Your task to perform on an android device: turn off priority inbox in the gmail app Image 0: 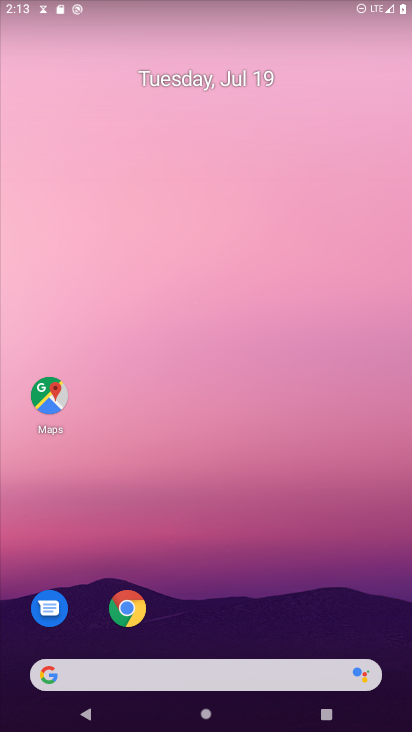
Step 0: drag from (212, 677) to (310, 17)
Your task to perform on an android device: turn off priority inbox in the gmail app Image 1: 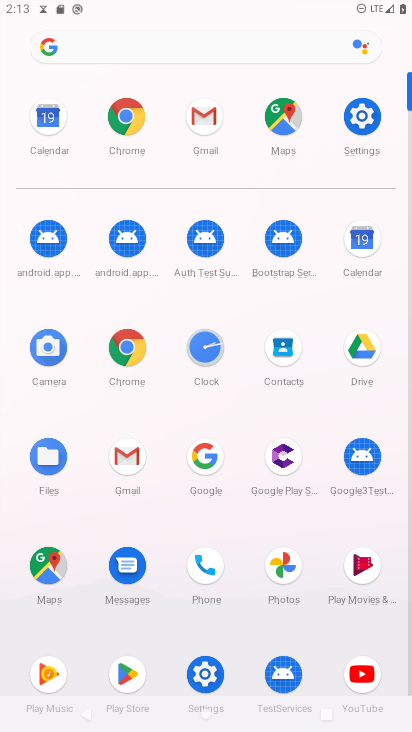
Step 1: click (123, 462)
Your task to perform on an android device: turn off priority inbox in the gmail app Image 2: 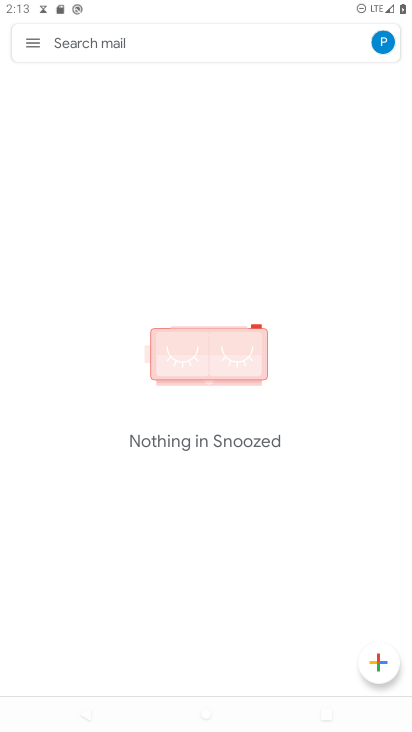
Step 2: click (28, 44)
Your task to perform on an android device: turn off priority inbox in the gmail app Image 3: 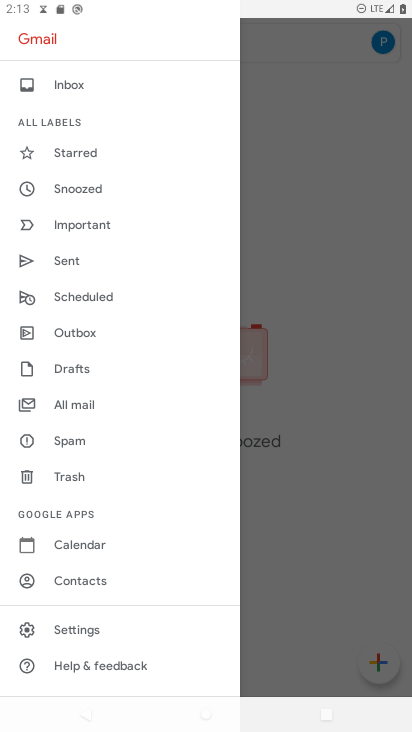
Step 3: click (73, 630)
Your task to perform on an android device: turn off priority inbox in the gmail app Image 4: 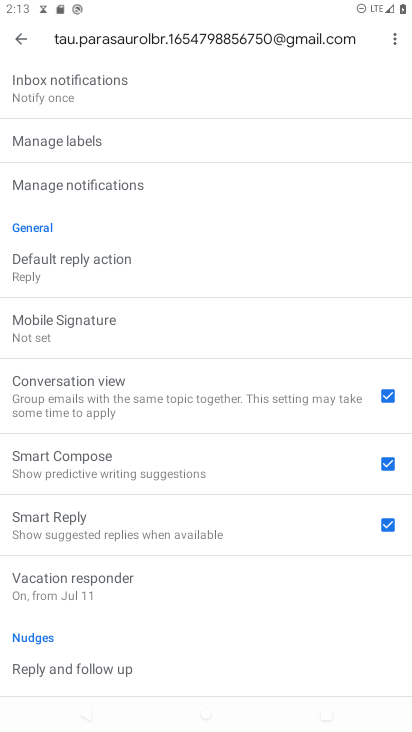
Step 4: drag from (203, 280) to (181, 586)
Your task to perform on an android device: turn off priority inbox in the gmail app Image 5: 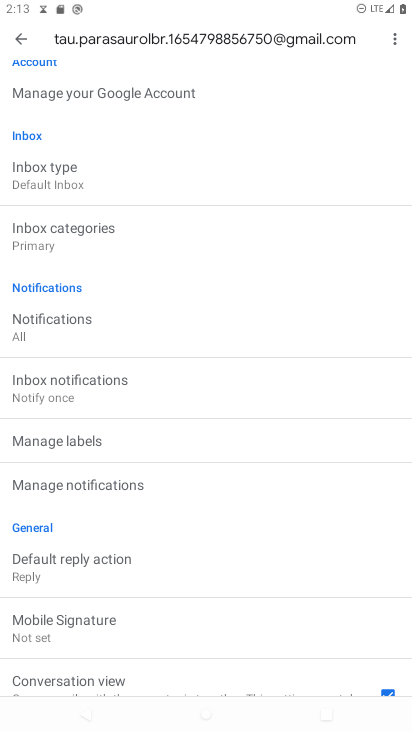
Step 5: click (102, 180)
Your task to perform on an android device: turn off priority inbox in the gmail app Image 6: 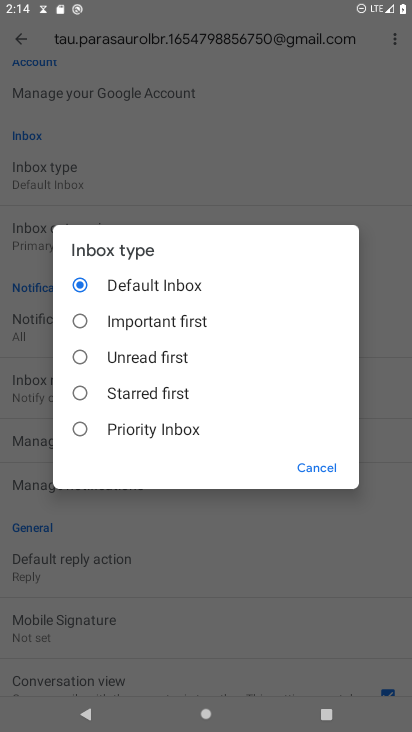
Step 6: task complete